Your task to perform on an android device: Set an alarm for 8pm Image 0: 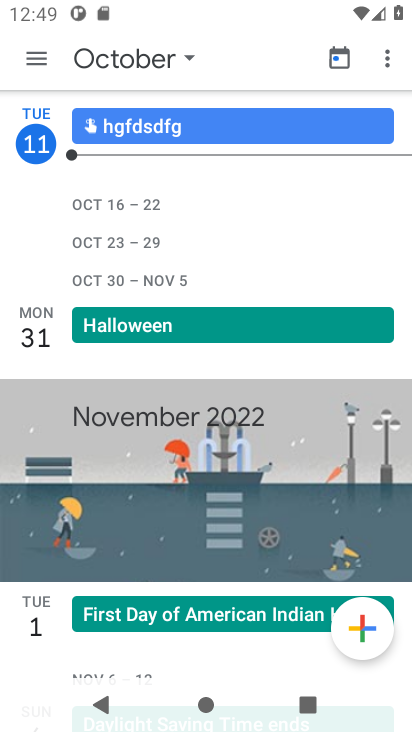
Step 0: press home button
Your task to perform on an android device: Set an alarm for 8pm Image 1: 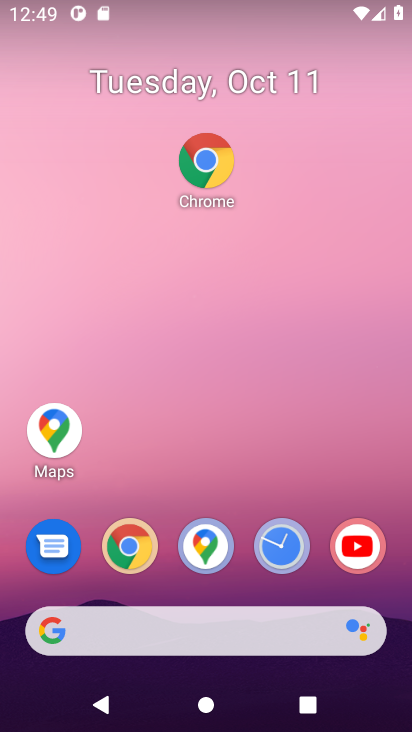
Step 1: drag from (281, 600) to (279, 275)
Your task to perform on an android device: Set an alarm for 8pm Image 2: 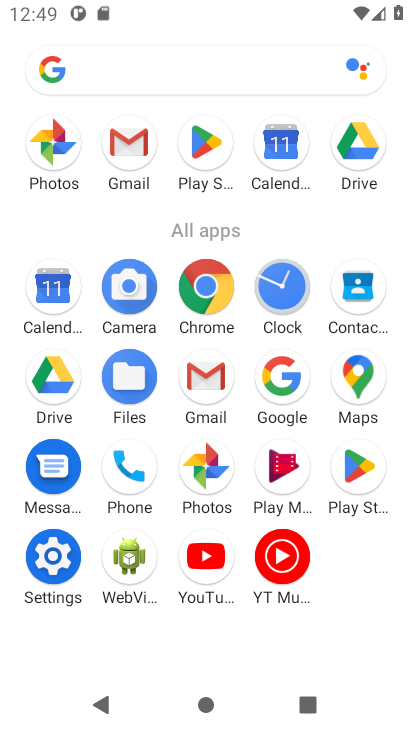
Step 2: click (273, 287)
Your task to perform on an android device: Set an alarm for 8pm Image 3: 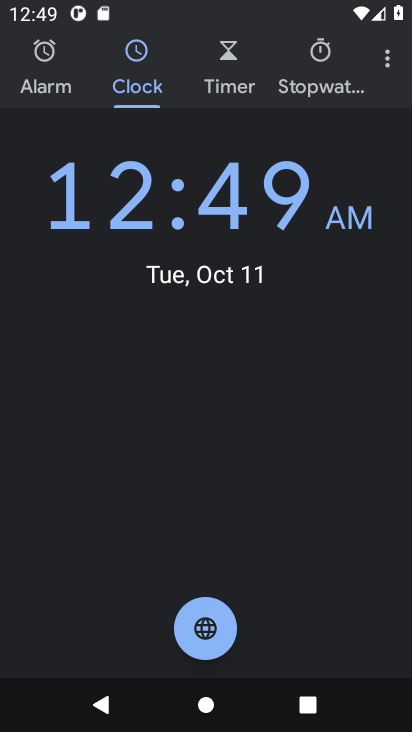
Step 3: click (52, 87)
Your task to perform on an android device: Set an alarm for 8pm Image 4: 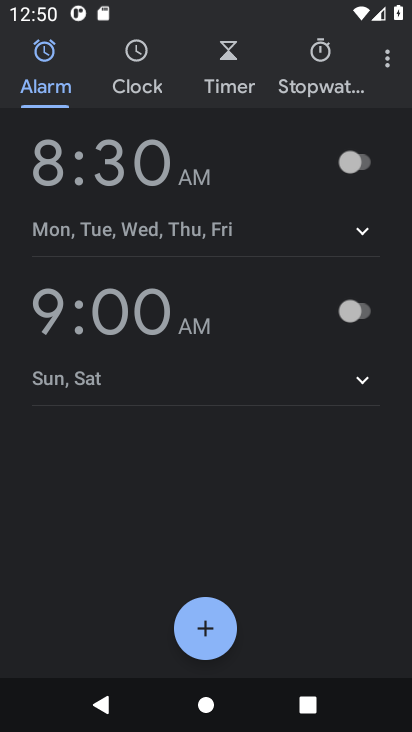
Step 4: click (205, 636)
Your task to perform on an android device: Set an alarm for 8pm Image 5: 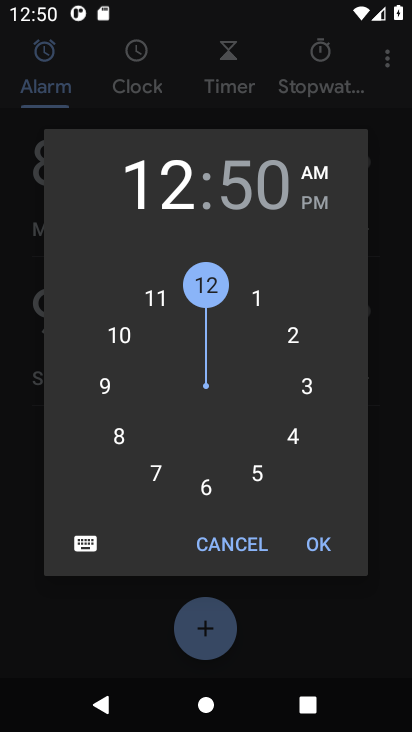
Step 5: click (128, 446)
Your task to perform on an android device: Set an alarm for 8pm Image 6: 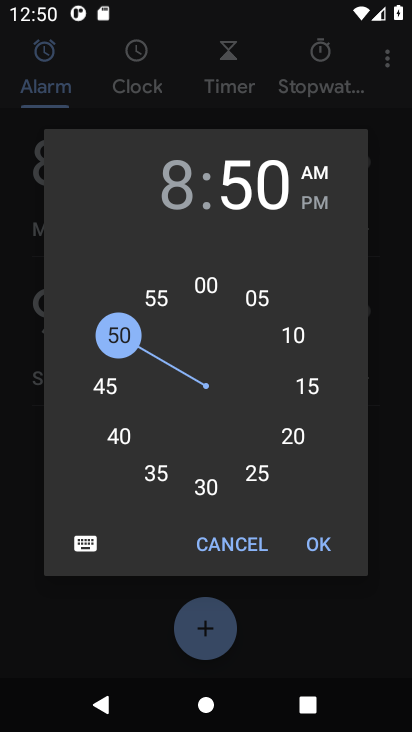
Step 6: drag from (118, 343) to (196, 302)
Your task to perform on an android device: Set an alarm for 8pm Image 7: 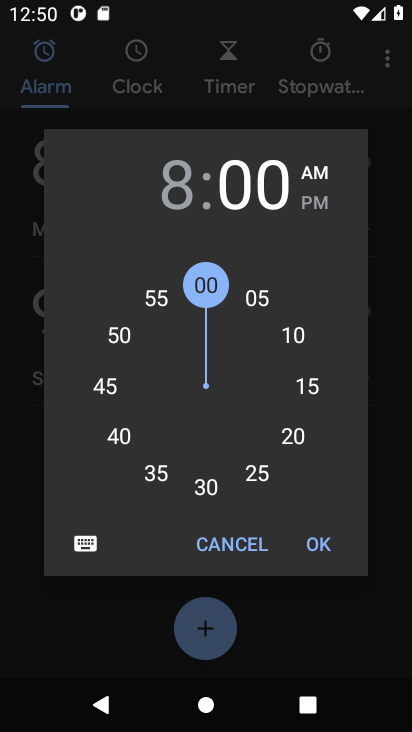
Step 7: click (319, 207)
Your task to perform on an android device: Set an alarm for 8pm Image 8: 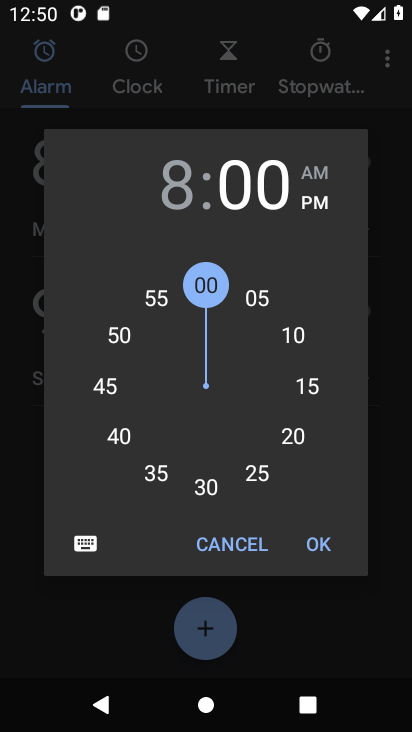
Step 8: click (201, 291)
Your task to perform on an android device: Set an alarm for 8pm Image 9: 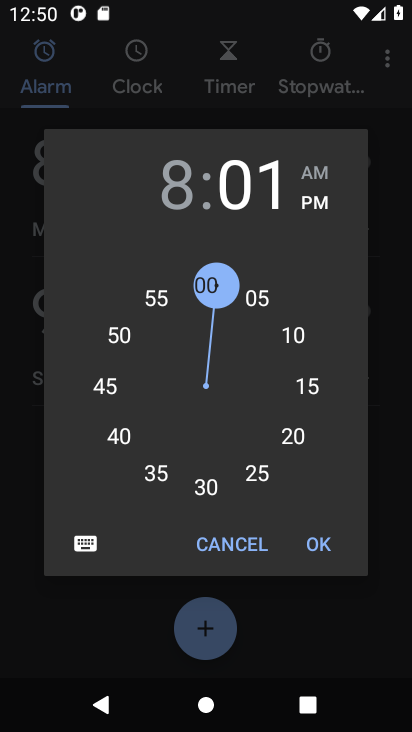
Step 9: click (194, 279)
Your task to perform on an android device: Set an alarm for 8pm Image 10: 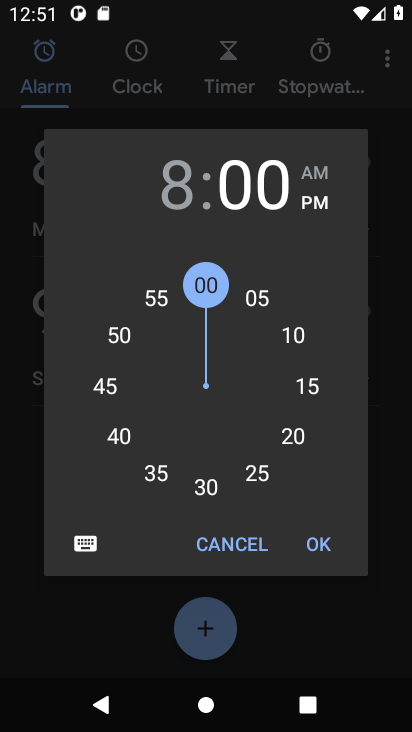
Step 10: click (319, 204)
Your task to perform on an android device: Set an alarm for 8pm Image 11: 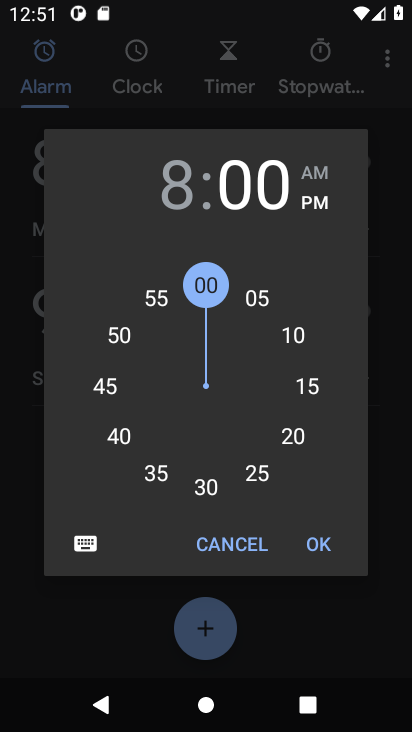
Step 11: click (324, 549)
Your task to perform on an android device: Set an alarm for 8pm Image 12: 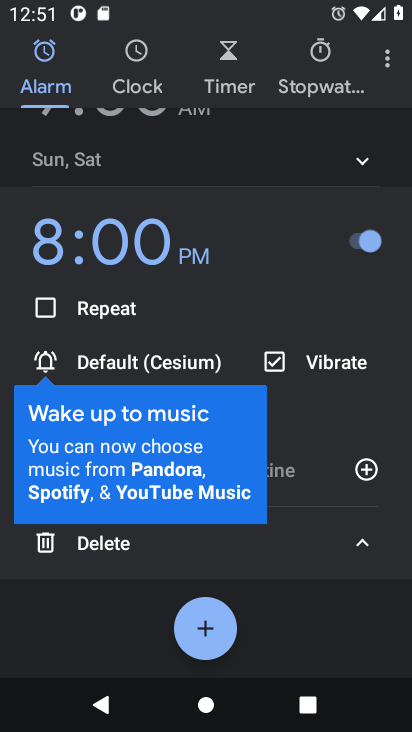
Step 12: click (360, 542)
Your task to perform on an android device: Set an alarm for 8pm Image 13: 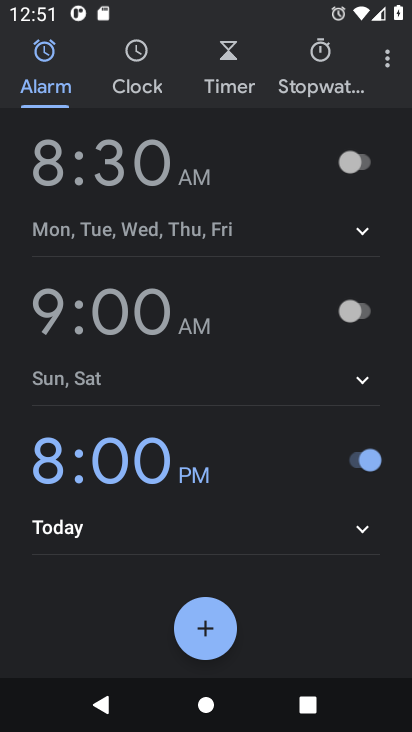
Step 13: task complete